Your task to perform on an android device: Check the weather Image 0: 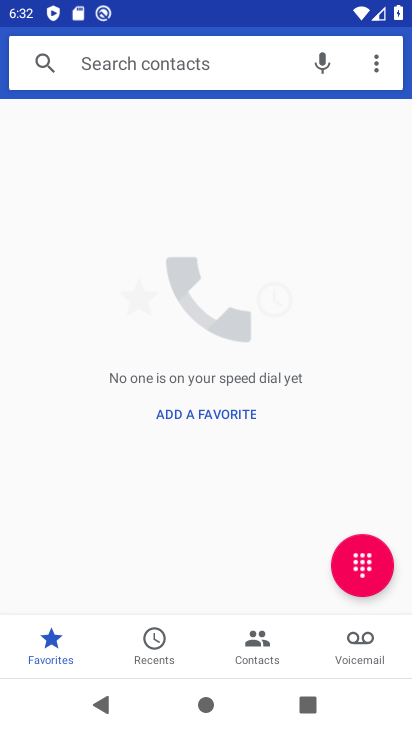
Step 0: press home button
Your task to perform on an android device: Check the weather Image 1: 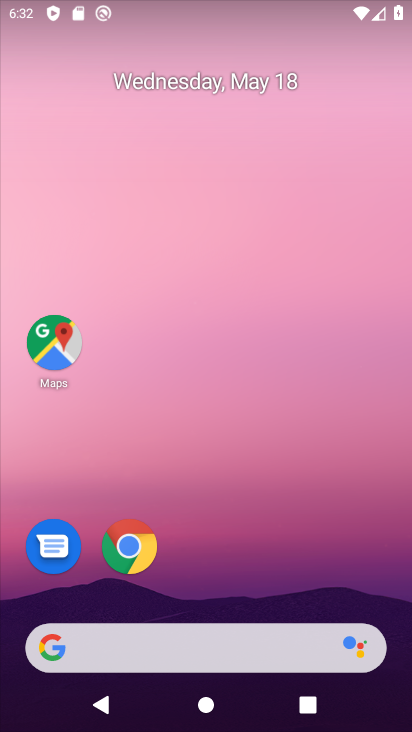
Step 1: drag from (339, 598) to (272, 180)
Your task to perform on an android device: Check the weather Image 2: 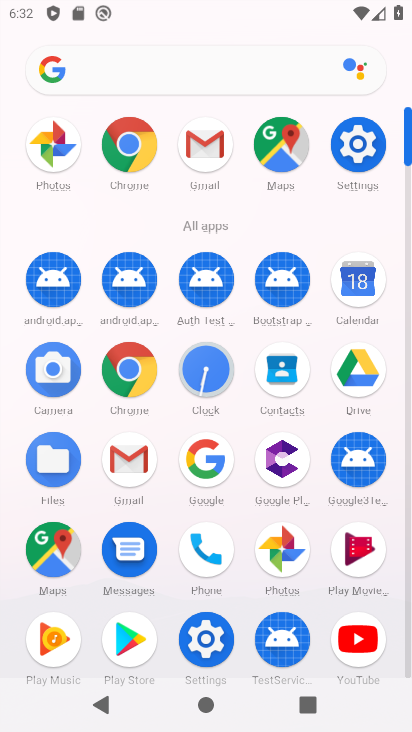
Step 2: click (194, 468)
Your task to perform on an android device: Check the weather Image 3: 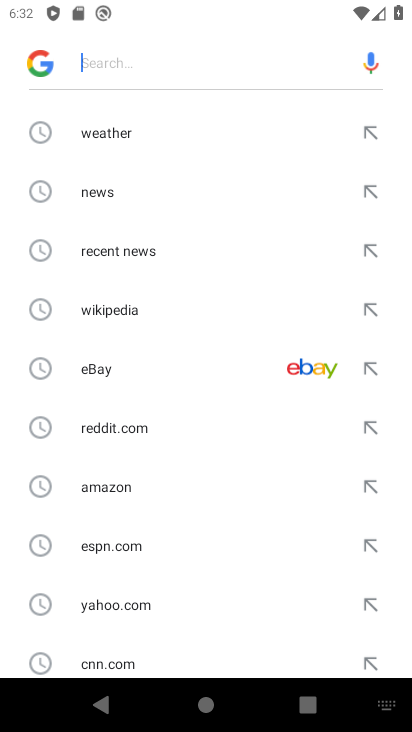
Step 3: click (152, 130)
Your task to perform on an android device: Check the weather Image 4: 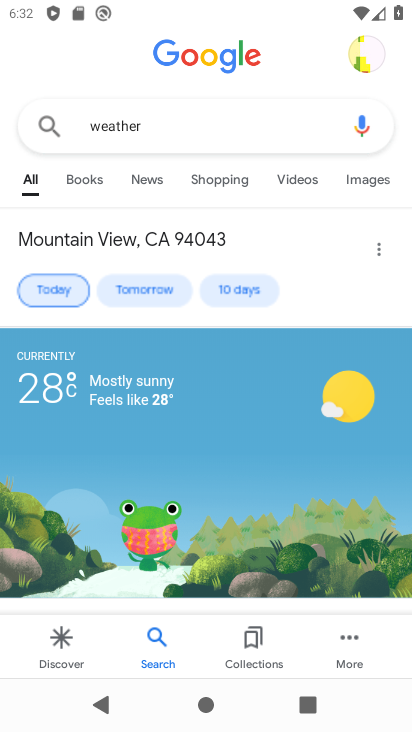
Step 4: task complete